Your task to perform on an android device: Open Youtube and go to the subscriptions tab Image 0: 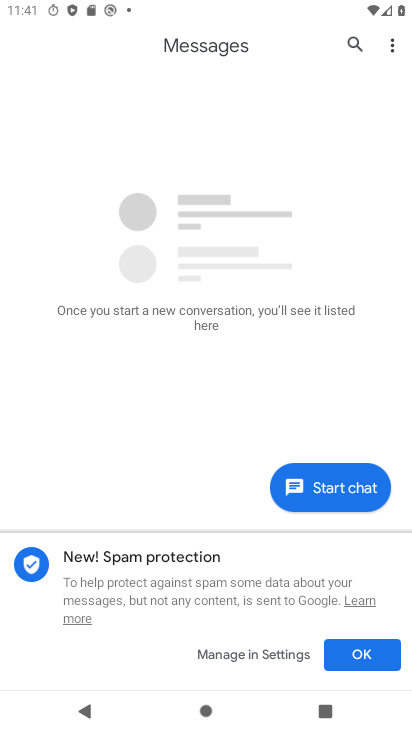
Step 0: press home button
Your task to perform on an android device: Open Youtube and go to the subscriptions tab Image 1: 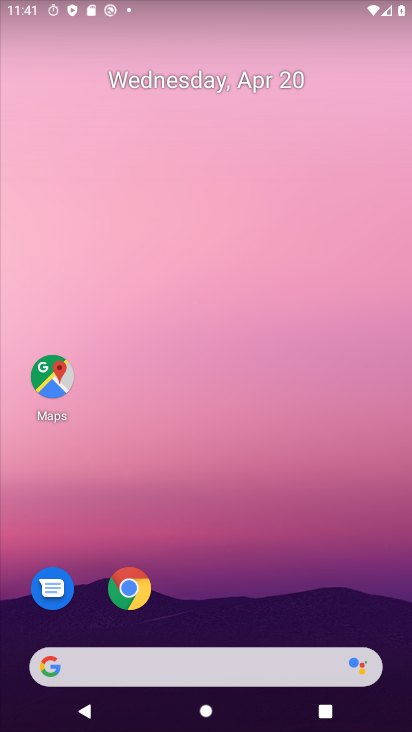
Step 1: drag from (192, 225) to (192, 159)
Your task to perform on an android device: Open Youtube and go to the subscriptions tab Image 2: 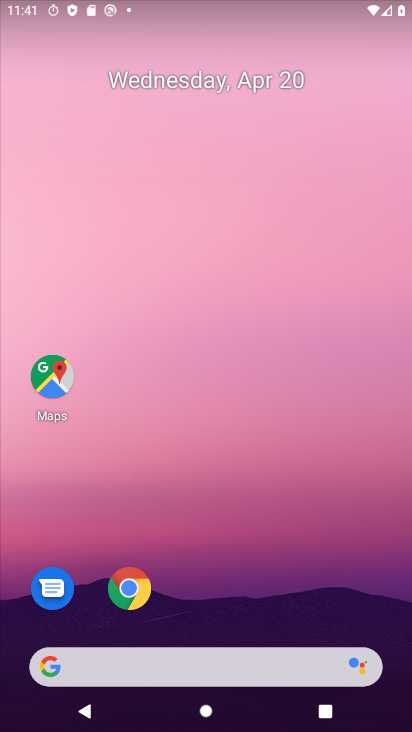
Step 2: drag from (226, 618) to (224, 13)
Your task to perform on an android device: Open Youtube and go to the subscriptions tab Image 3: 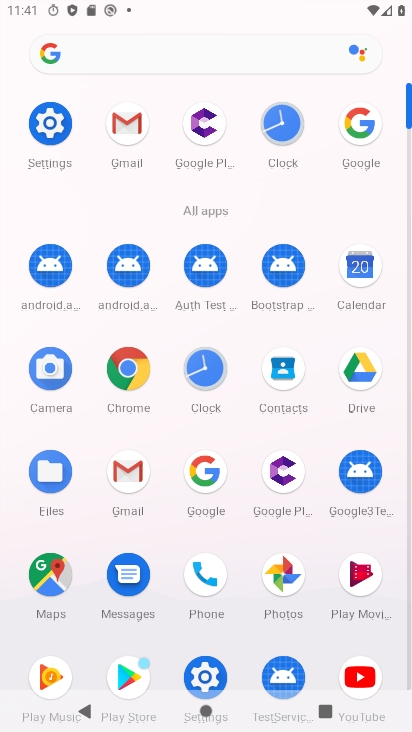
Step 3: click (356, 669)
Your task to perform on an android device: Open Youtube and go to the subscriptions tab Image 4: 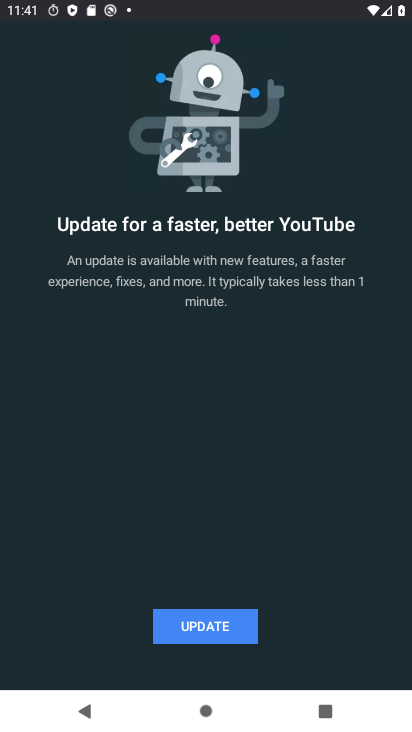
Step 4: click (202, 622)
Your task to perform on an android device: Open Youtube and go to the subscriptions tab Image 5: 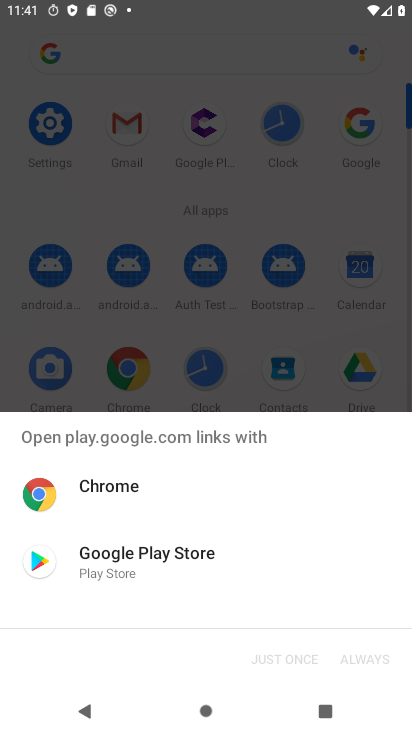
Step 5: click (92, 553)
Your task to perform on an android device: Open Youtube and go to the subscriptions tab Image 6: 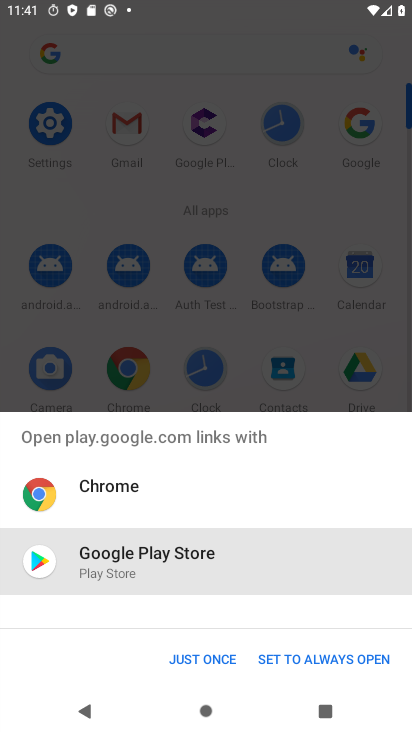
Step 6: click (199, 661)
Your task to perform on an android device: Open Youtube and go to the subscriptions tab Image 7: 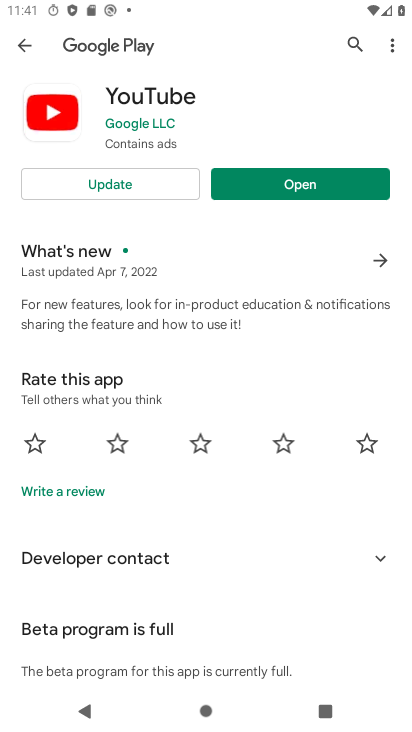
Step 7: click (100, 184)
Your task to perform on an android device: Open Youtube and go to the subscriptions tab Image 8: 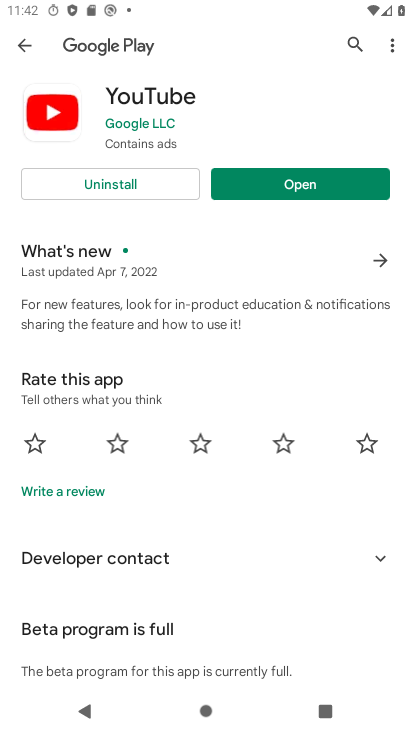
Step 8: click (304, 188)
Your task to perform on an android device: Open Youtube and go to the subscriptions tab Image 9: 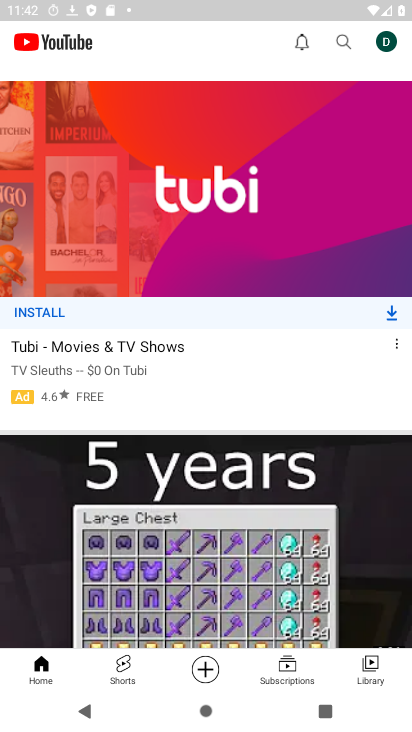
Step 9: click (287, 666)
Your task to perform on an android device: Open Youtube and go to the subscriptions tab Image 10: 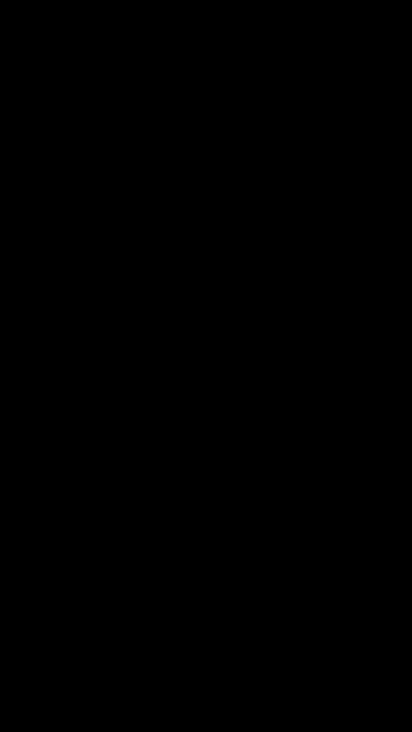
Step 10: task complete